Your task to perform on an android device: Add razer blade to the cart on costco.com Image 0: 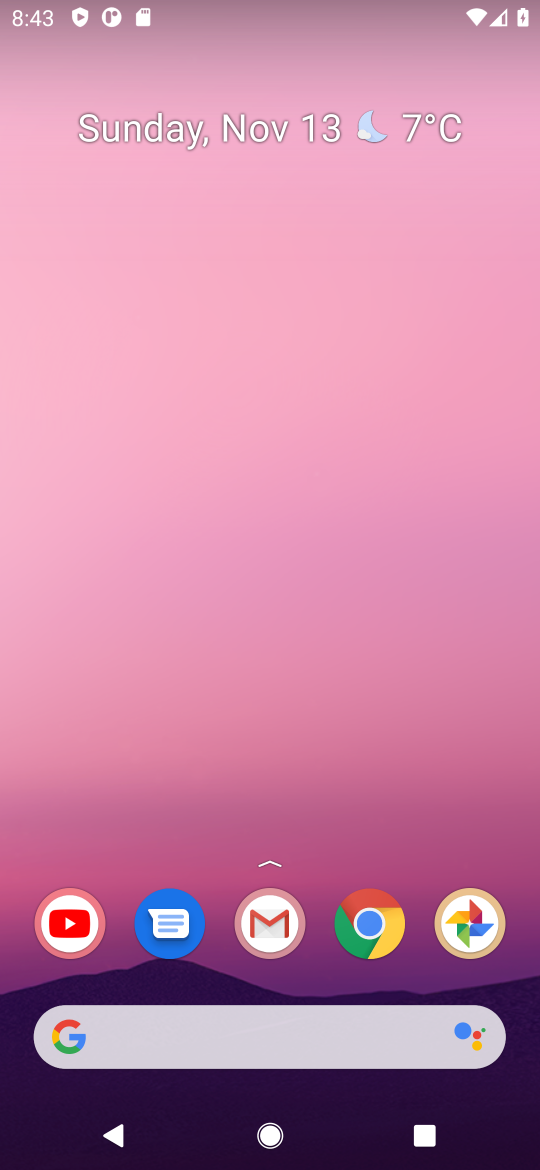
Step 0: click (380, 919)
Your task to perform on an android device: Add razer blade to the cart on costco.com Image 1: 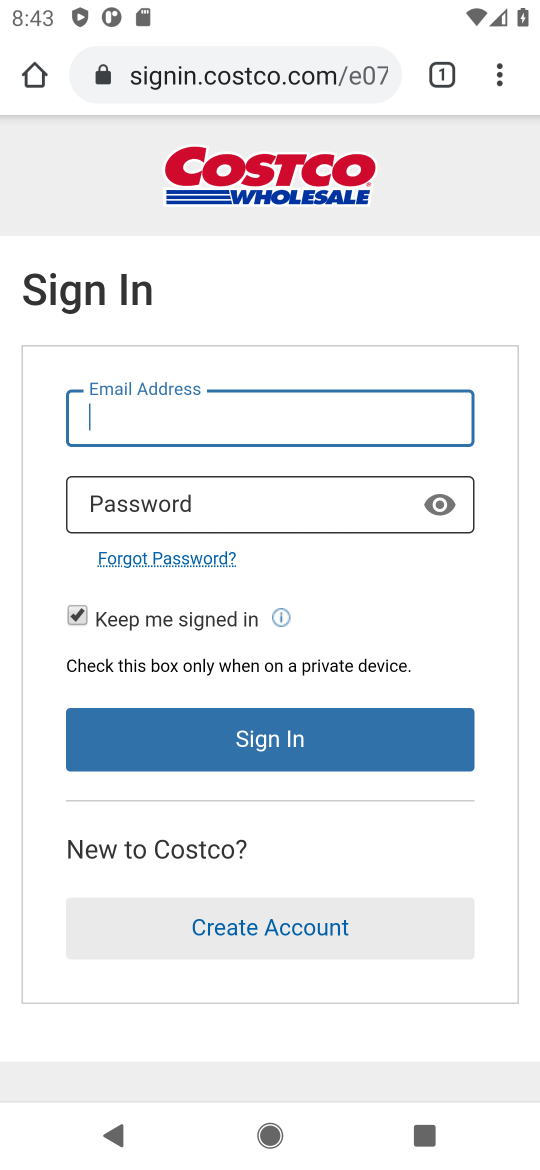
Step 1: click (174, 77)
Your task to perform on an android device: Add razer blade to the cart on costco.com Image 2: 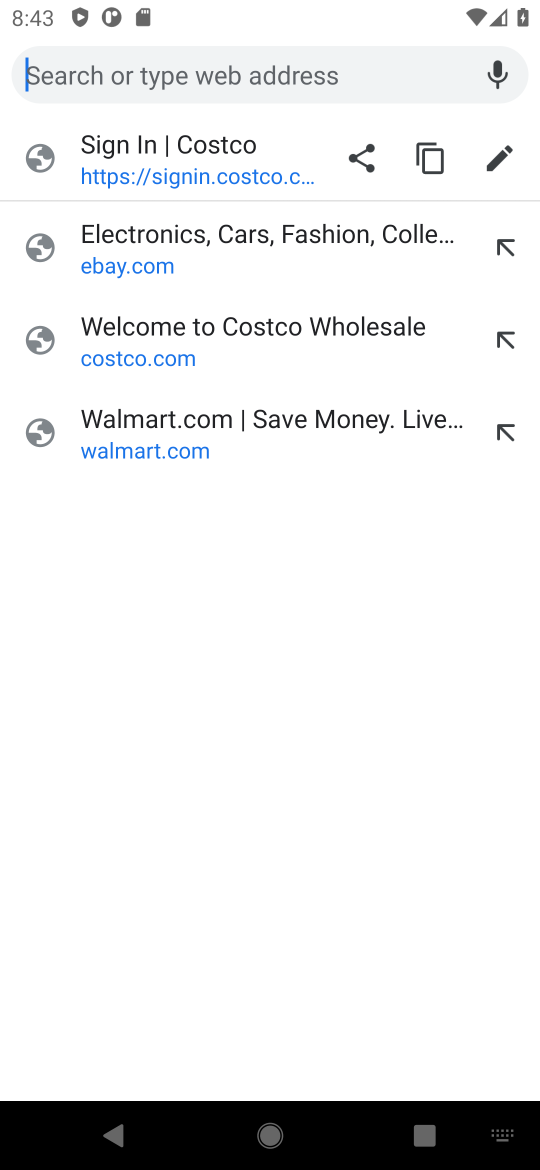
Step 2: type "costco.com"
Your task to perform on an android device: Add razer blade to the cart on costco.com Image 3: 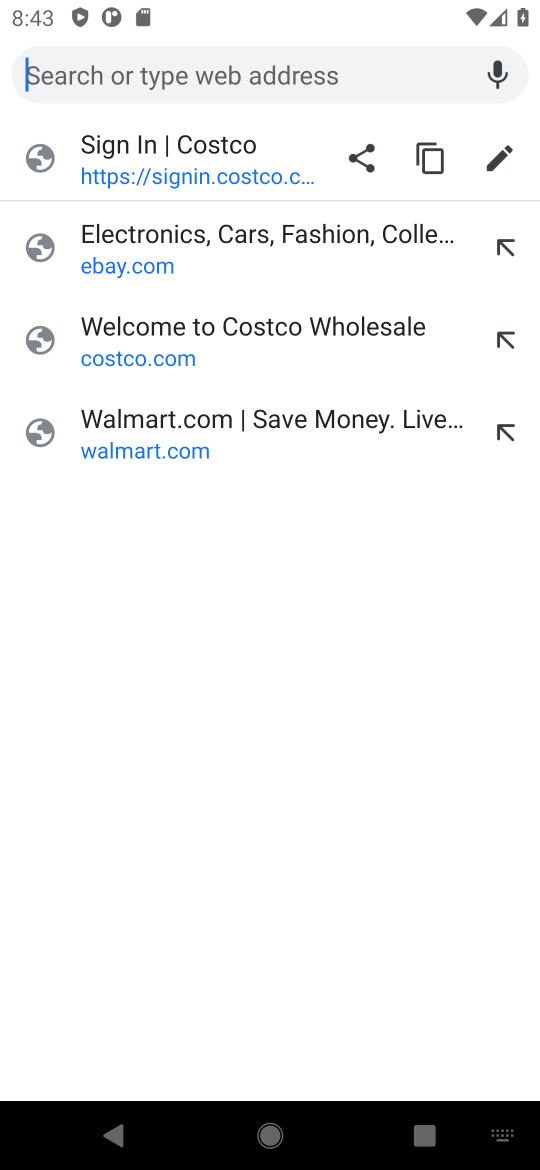
Step 3: click (233, 347)
Your task to perform on an android device: Add razer blade to the cart on costco.com Image 4: 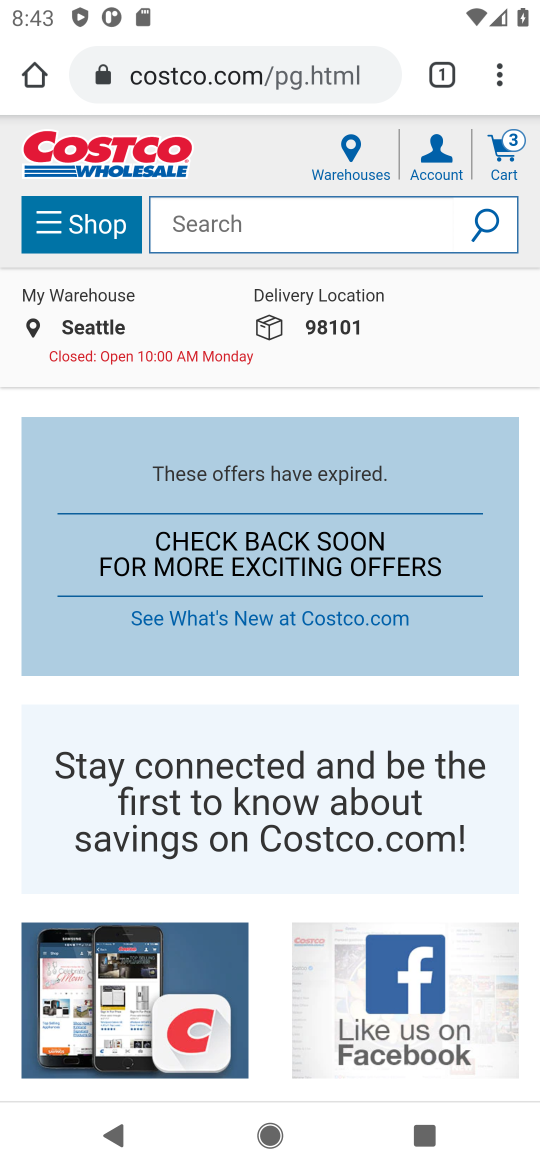
Step 4: click (291, 225)
Your task to perform on an android device: Add razer blade to the cart on costco.com Image 5: 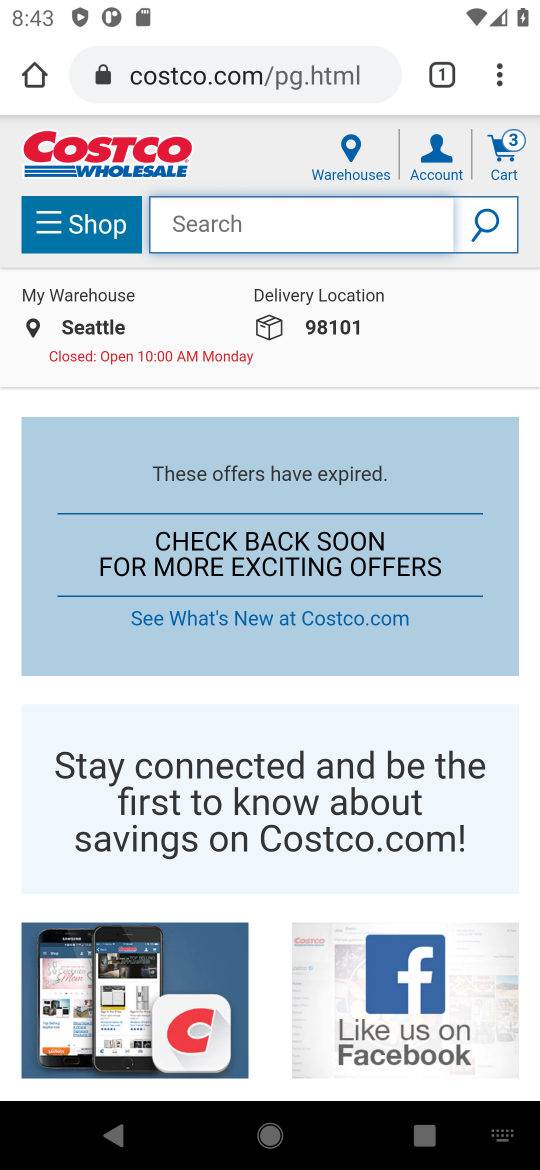
Step 5: type "razer blade"
Your task to perform on an android device: Add razer blade to the cart on costco.com Image 6: 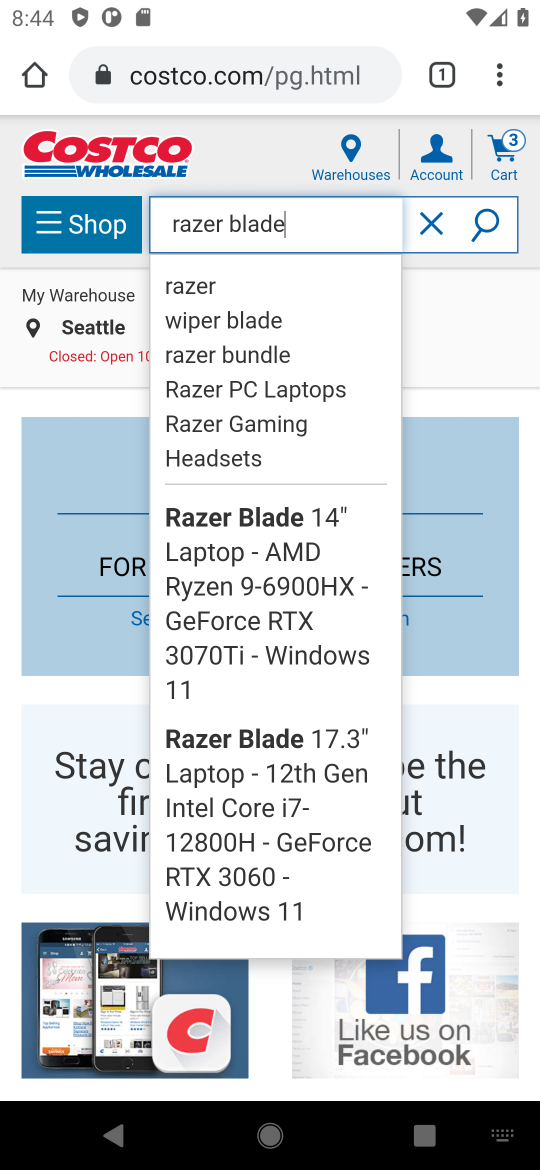
Step 6: press enter
Your task to perform on an android device: Add razer blade to the cart on costco.com Image 7: 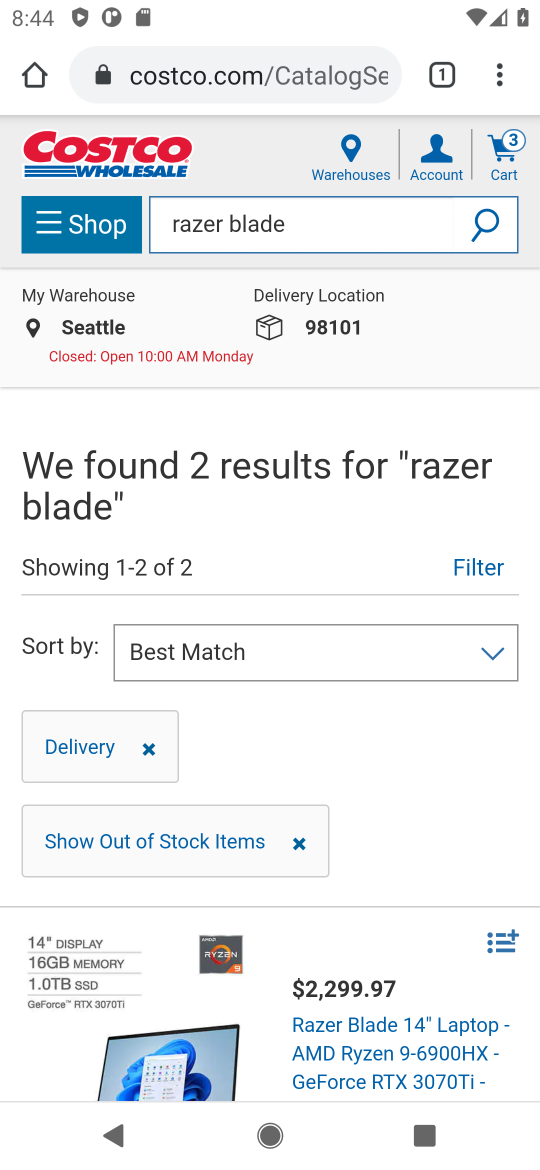
Step 7: drag from (412, 889) to (353, 407)
Your task to perform on an android device: Add razer blade to the cart on costco.com Image 8: 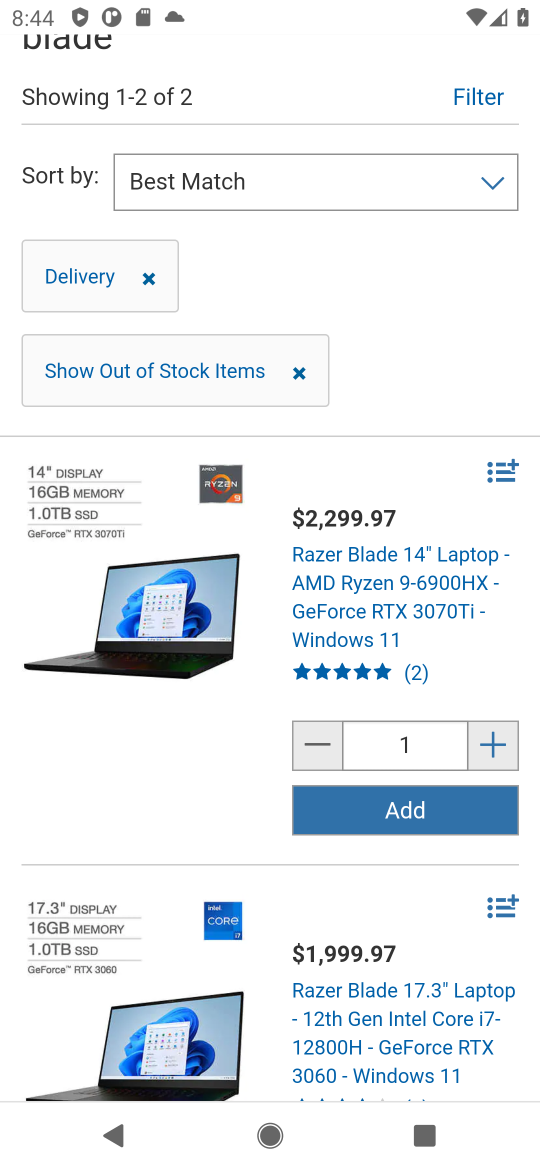
Step 8: click (400, 820)
Your task to perform on an android device: Add razer blade to the cart on costco.com Image 9: 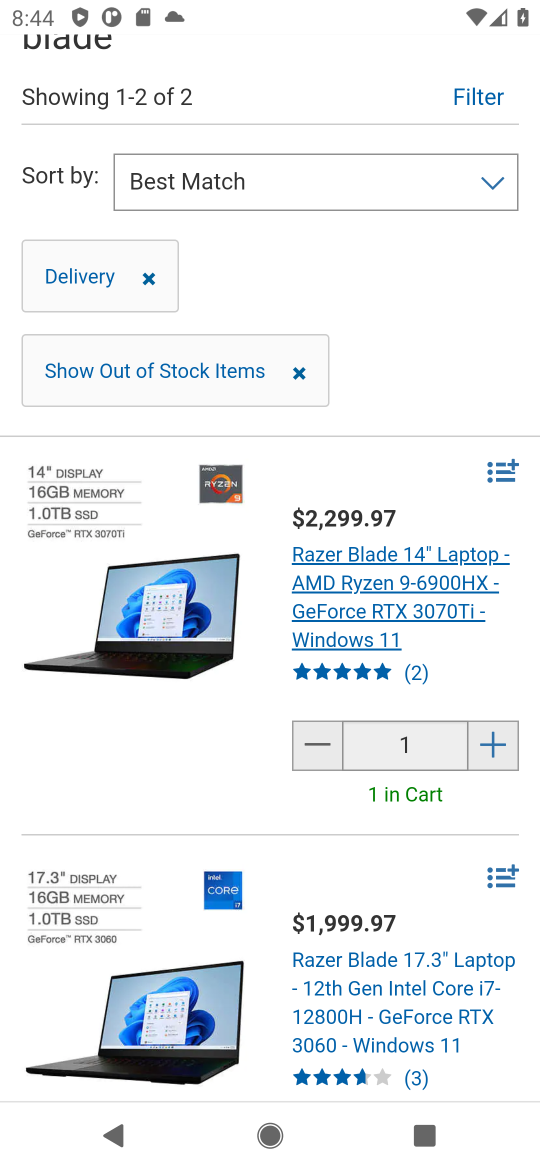
Step 9: task complete